Your task to perform on an android device: Open settings on Google Maps Image 0: 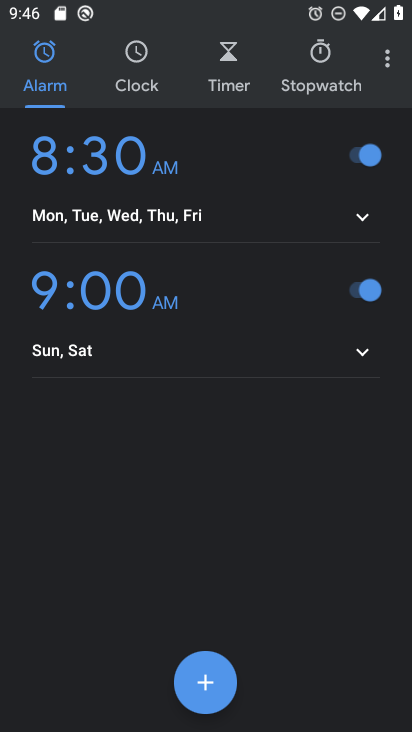
Step 0: press home button
Your task to perform on an android device: Open settings on Google Maps Image 1: 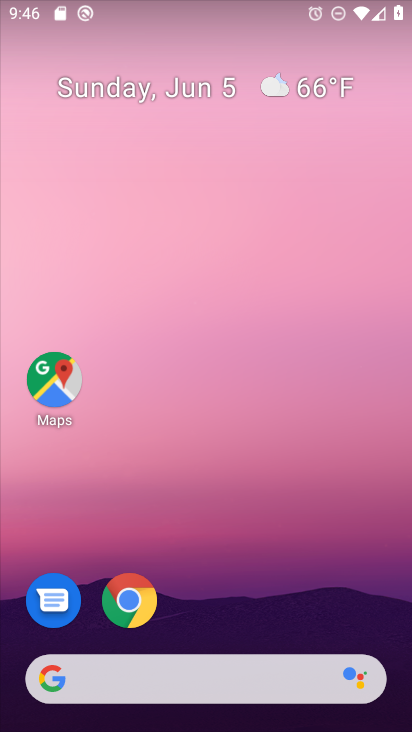
Step 1: drag from (350, 622) to (261, 54)
Your task to perform on an android device: Open settings on Google Maps Image 2: 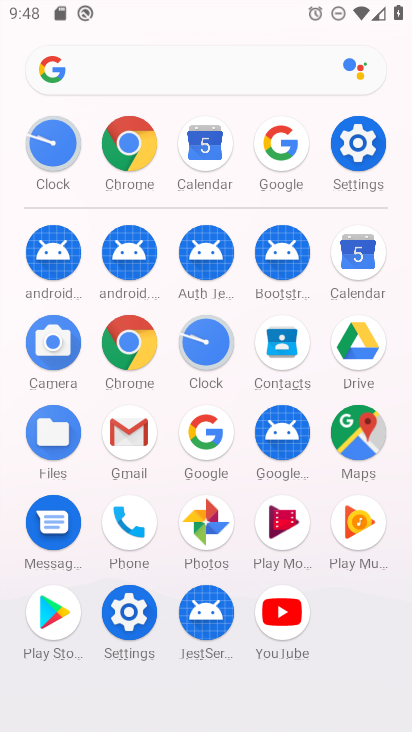
Step 2: click (364, 429)
Your task to perform on an android device: Open settings on Google Maps Image 3: 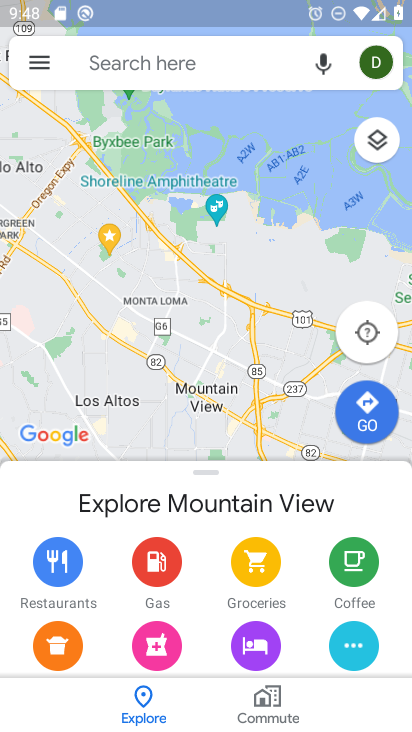
Step 3: click (56, 68)
Your task to perform on an android device: Open settings on Google Maps Image 4: 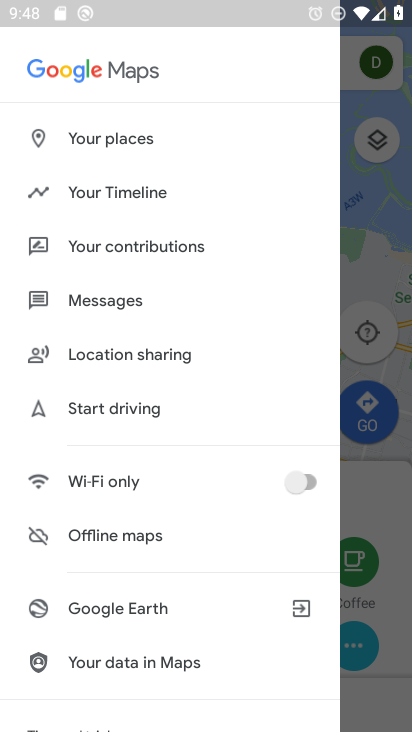
Step 4: drag from (153, 633) to (160, 68)
Your task to perform on an android device: Open settings on Google Maps Image 5: 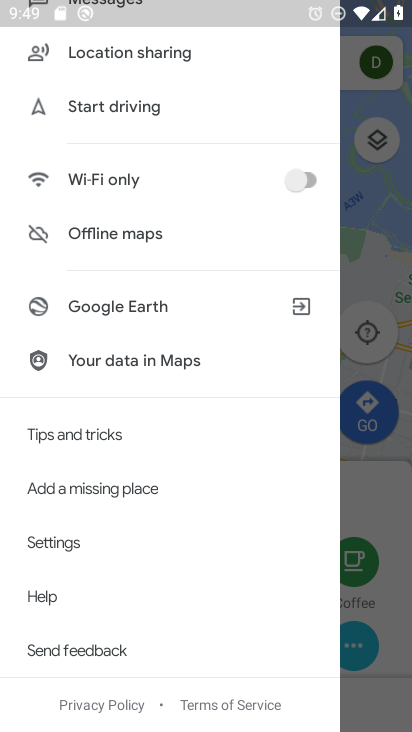
Step 5: click (81, 536)
Your task to perform on an android device: Open settings on Google Maps Image 6: 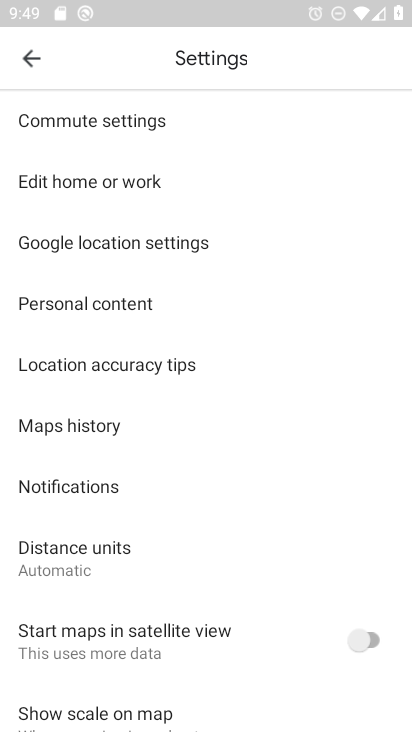
Step 6: task complete